Your task to perform on an android device: Open calendar and show me the third week of next month Image 0: 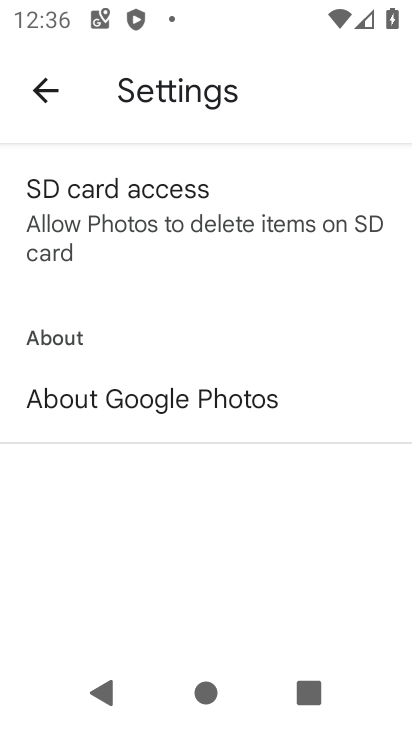
Step 0: press home button
Your task to perform on an android device: Open calendar and show me the third week of next month Image 1: 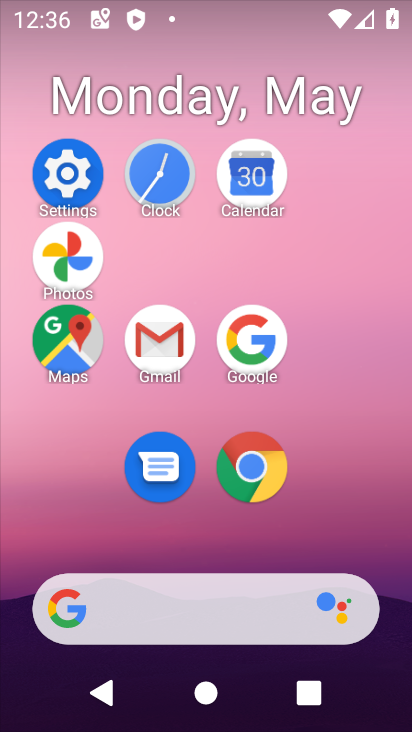
Step 1: click (266, 165)
Your task to perform on an android device: Open calendar and show me the third week of next month Image 2: 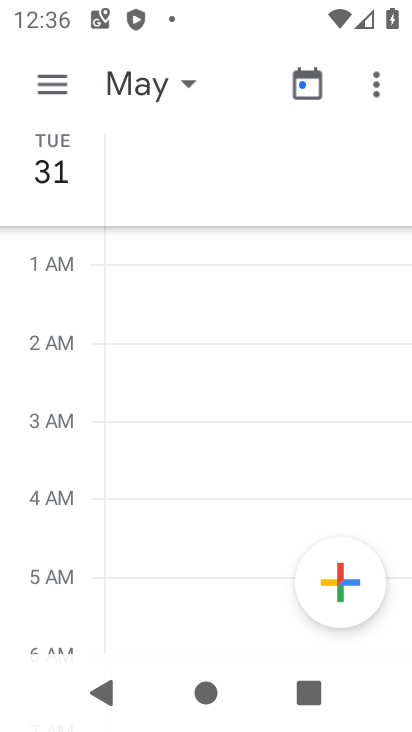
Step 2: click (65, 89)
Your task to perform on an android device: Open calendar and show me the third week of next month Image 3: 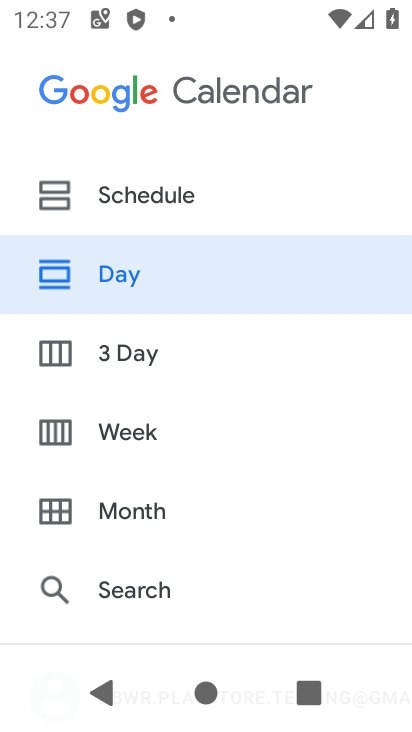
Step 3: click (163, 443)
Your task to perform on an android device: Open calendar and show me the third week of next month Image 4: 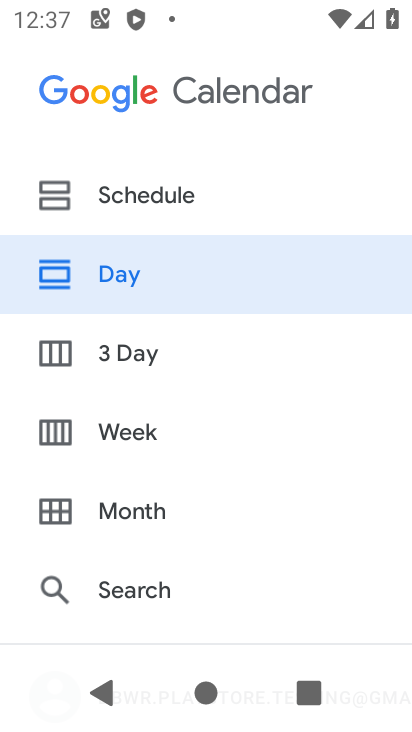
Step 4: click (121, 433)
Your task to perform on an android device: Open calendar and show me the third week of next month Image 5: 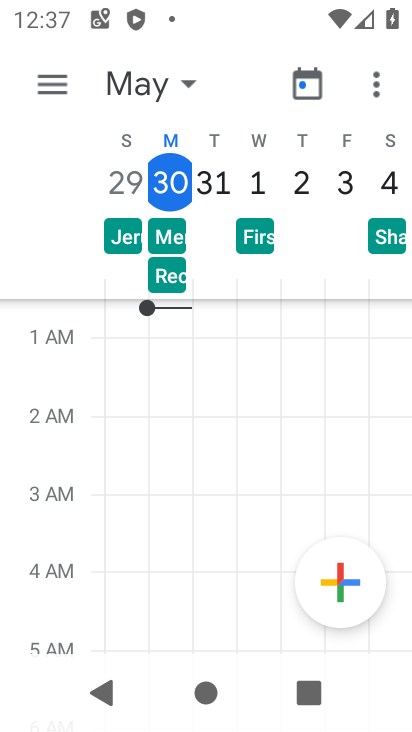
Step 5: task complete